Your task to perform on an android device: delete location history Image 0: 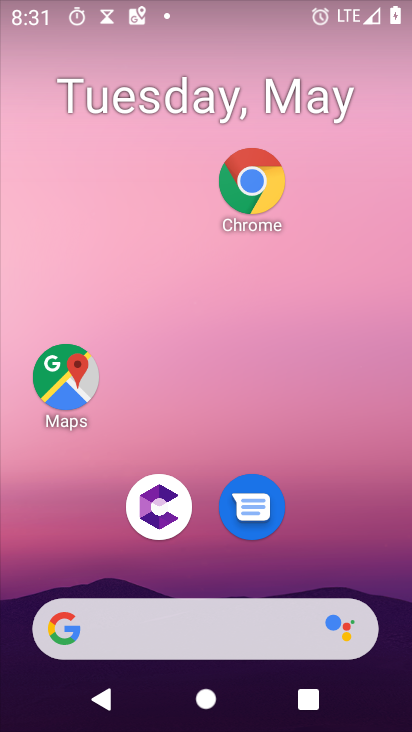
Step 0: click (67, 382)
Your task to perform on an android device: delete location history Image 1: 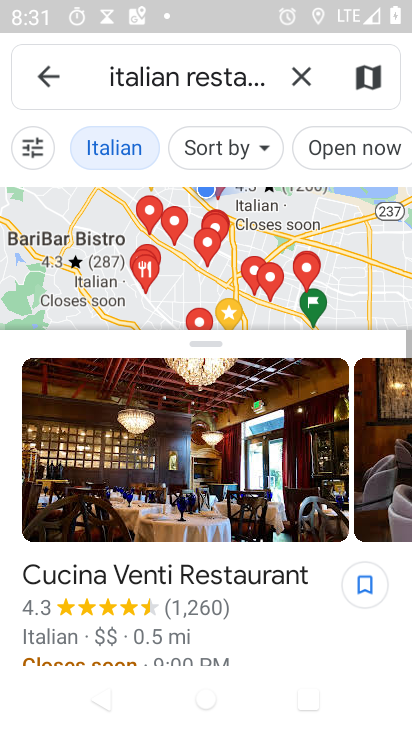
Step 1: click (45, 64)
Your task to perform on an android device: delete location history Image 2: 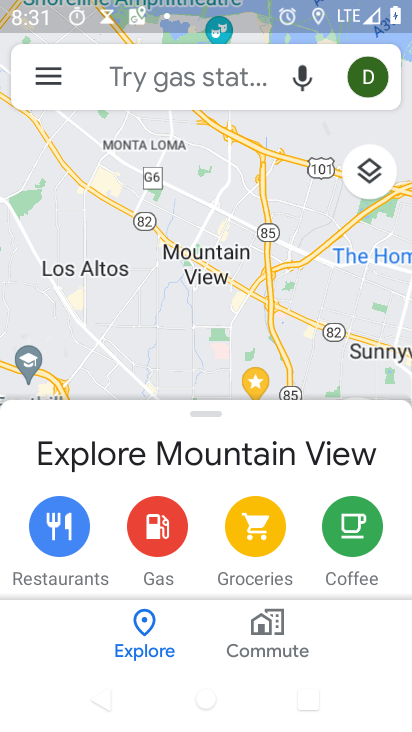
Step 2: click (45, 66)
Your task to perform on an android device: delete location history Image 3: 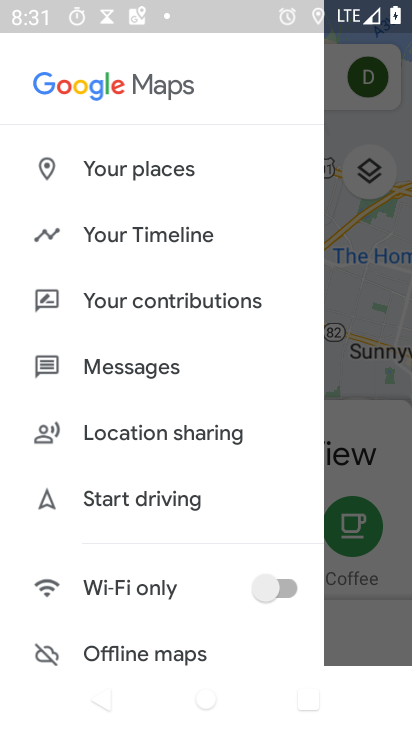
Step 3: click (195, 238)
Your task to perform on an android device: delete location history Image 4: 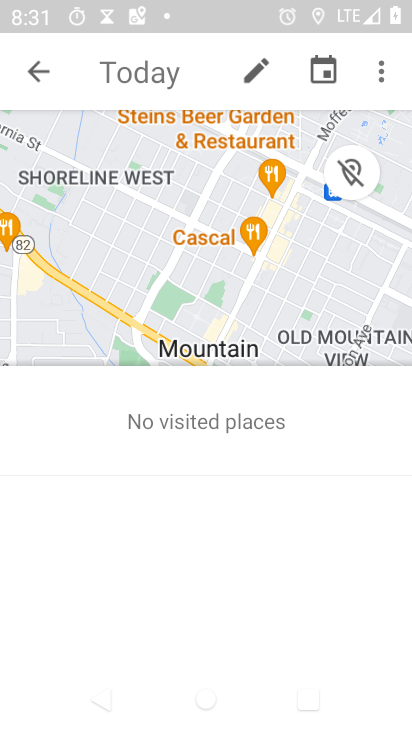
Step 4: click (371, 61)
Your task to perform on an android device: delete location history Image 5: 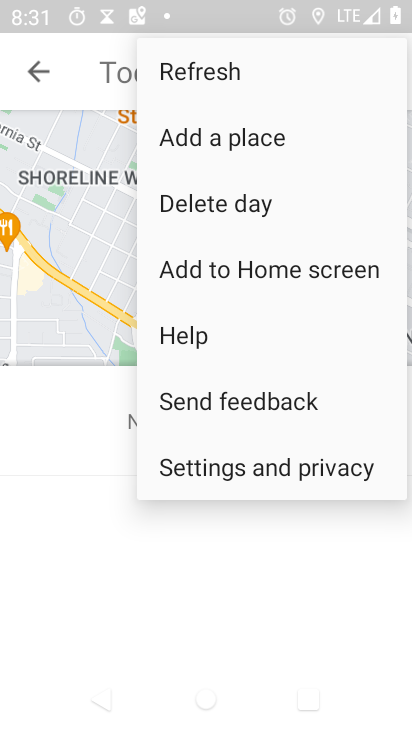
Step 5: click (202, 463)
Your task to perform on an android device: delete location history Image 6: 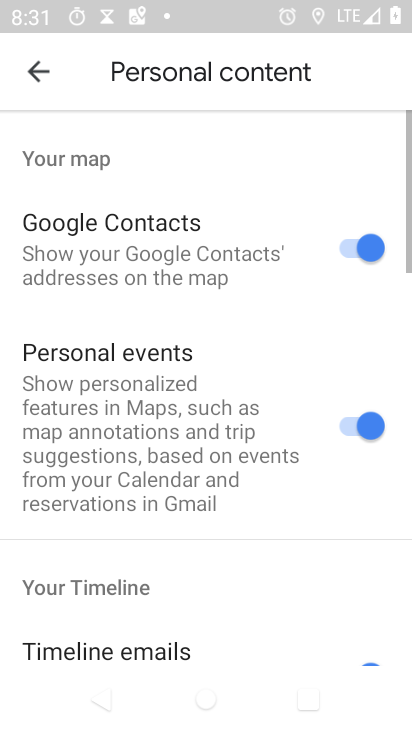
Step 6: drag from (170, 528) to (279, 174)
Your task to perform on an android device: delete location history Image 7: 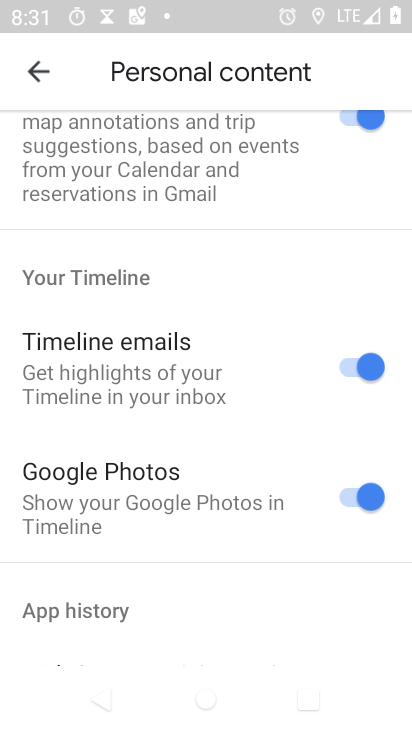
Step 7: drag from (212, 541) to (272, 130)
Your task to perform on an android device: delete location history Image 8: 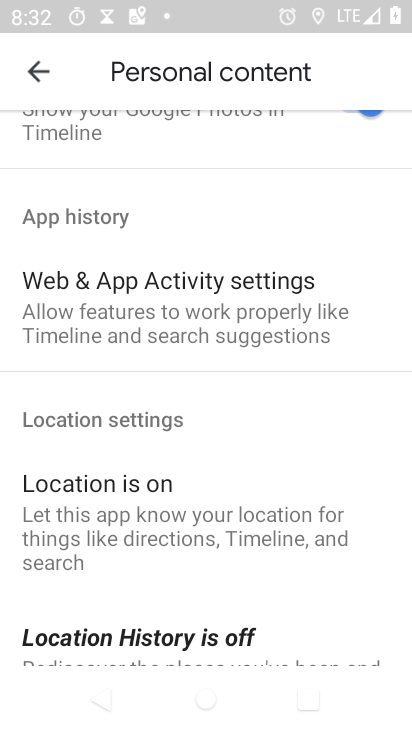
Step 8: drag from (203, 494) to (283, 79)
Your task to perform on an android device: delete location history Image 9: 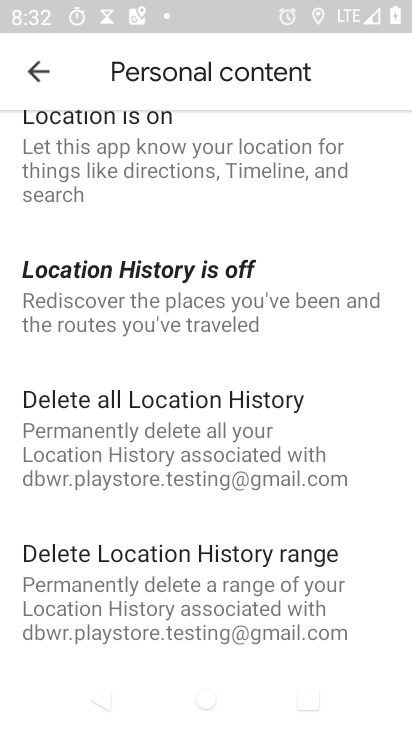
Step 9: click (259, 448)
Your task to perform on an android device: delete location history Image 10: 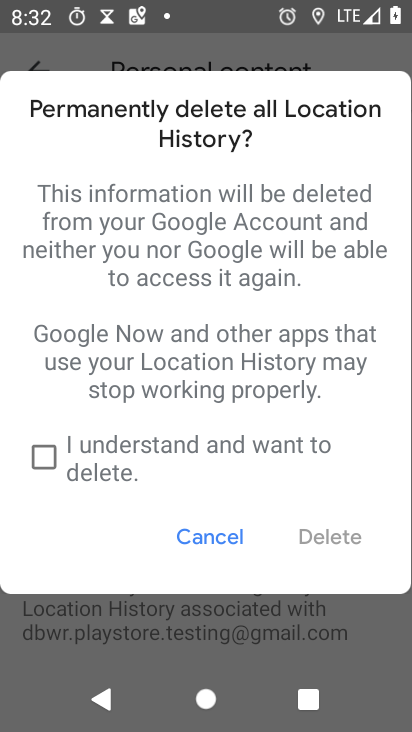
Step 10: click (213, 469)
Your task to perform on an android device: delete location history Image 11: 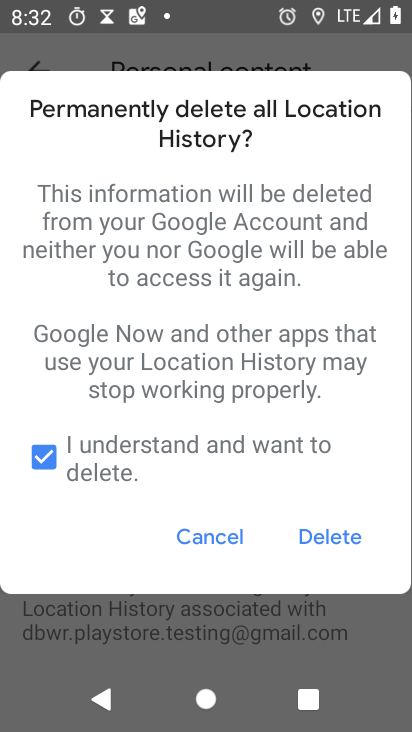
Step 11: click (332, 533)
Your task to perform on an android device: delete location history Image 12: 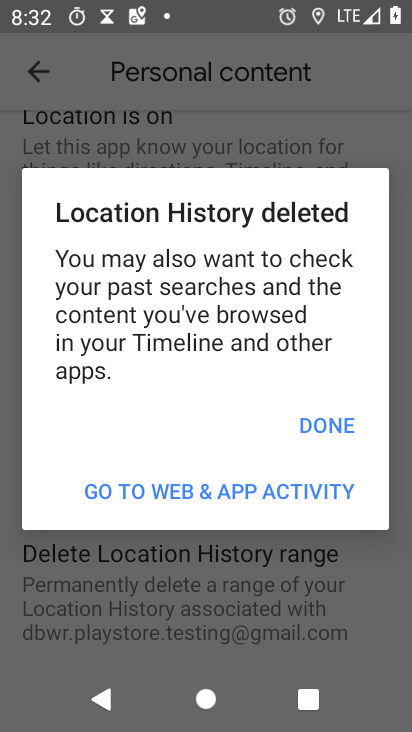
Step 12: click (339, 424)
Your task to perform on an android device: delete location history Image 13: 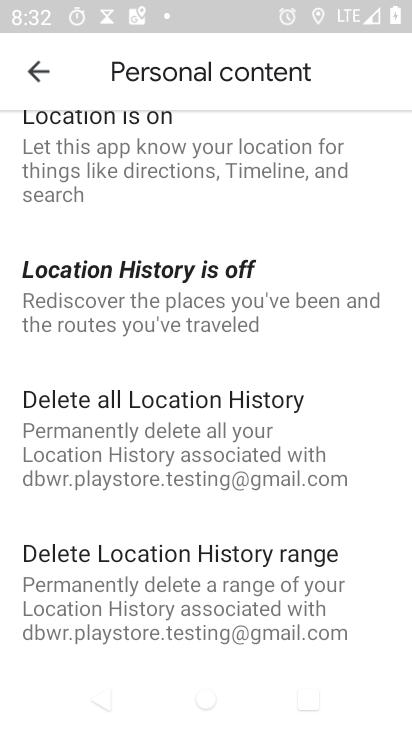
Step 13: task complete